Your task to perform on an android device: Open notification settings Image 0: 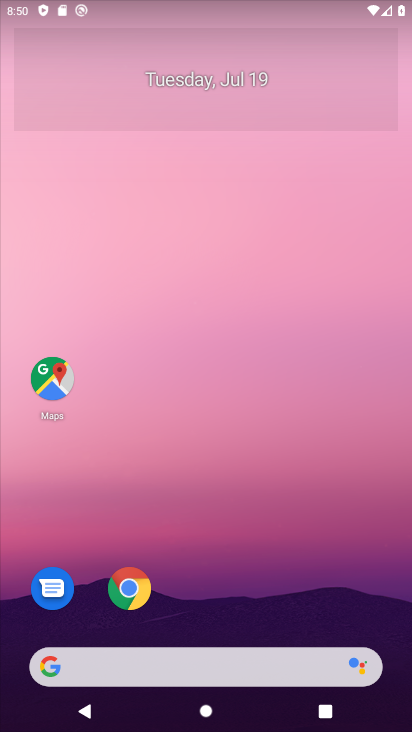
Step 0: drag from (308, 594) to (193, 4)
Your task to perform on an android device: Open notification settings Image 1: 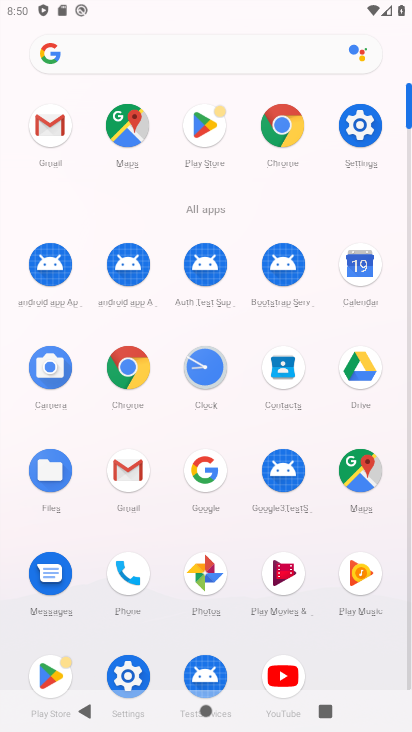
Step 1: click (349, 131)
Your task to perform on an android device: Open notification settings Image 2: 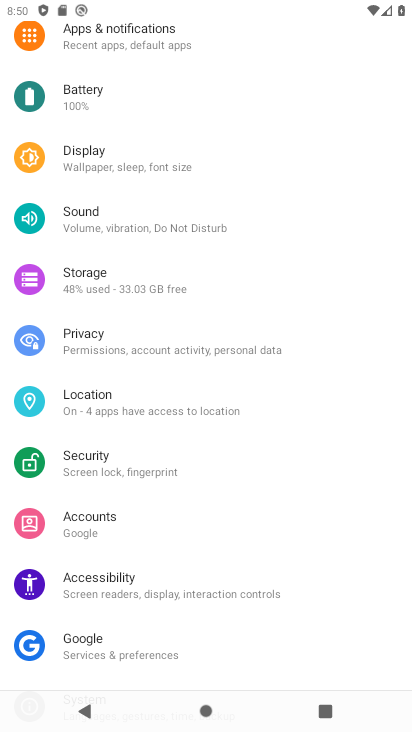
Step 2: drag from (168, 67) to (317, 494)
Your task to perform on an android device: Open notification settings Image 3: 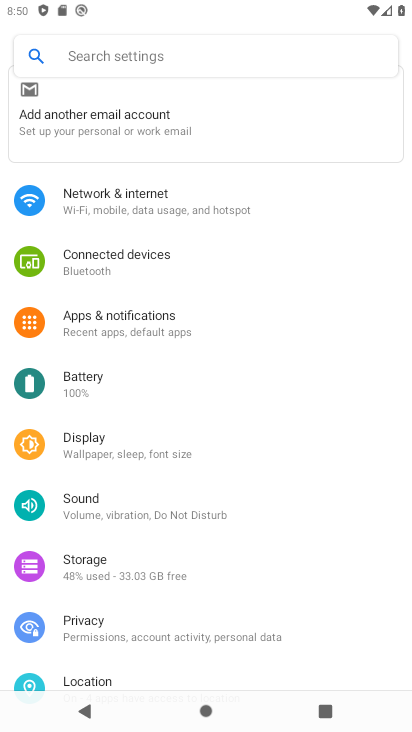
Step 3: click (141, 320)
Your task to perform on an android device: Open notification settings Image 4: 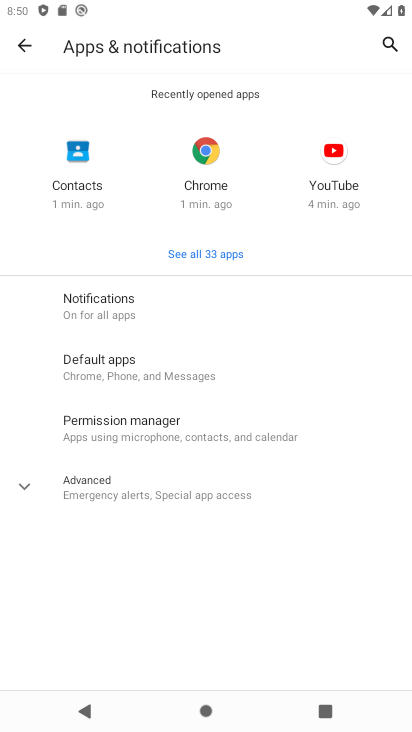
Step 4: click (92, 308)
Your task to perform on an android device: Open notification settings Image 5: 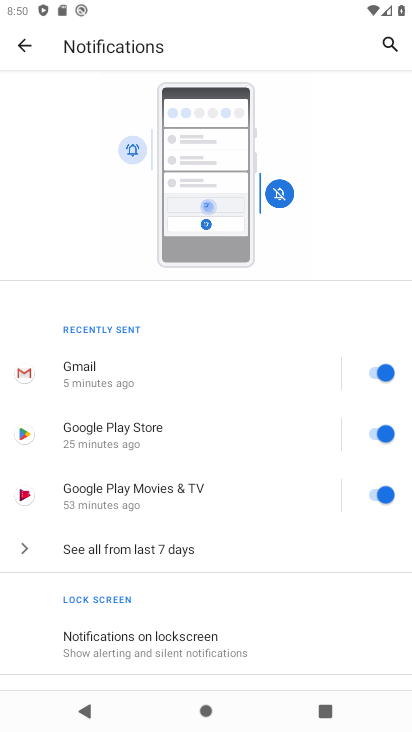
Step 5: task complete